Your task to perform on an android device: Show me productivity apps on the Play Store Image 0: 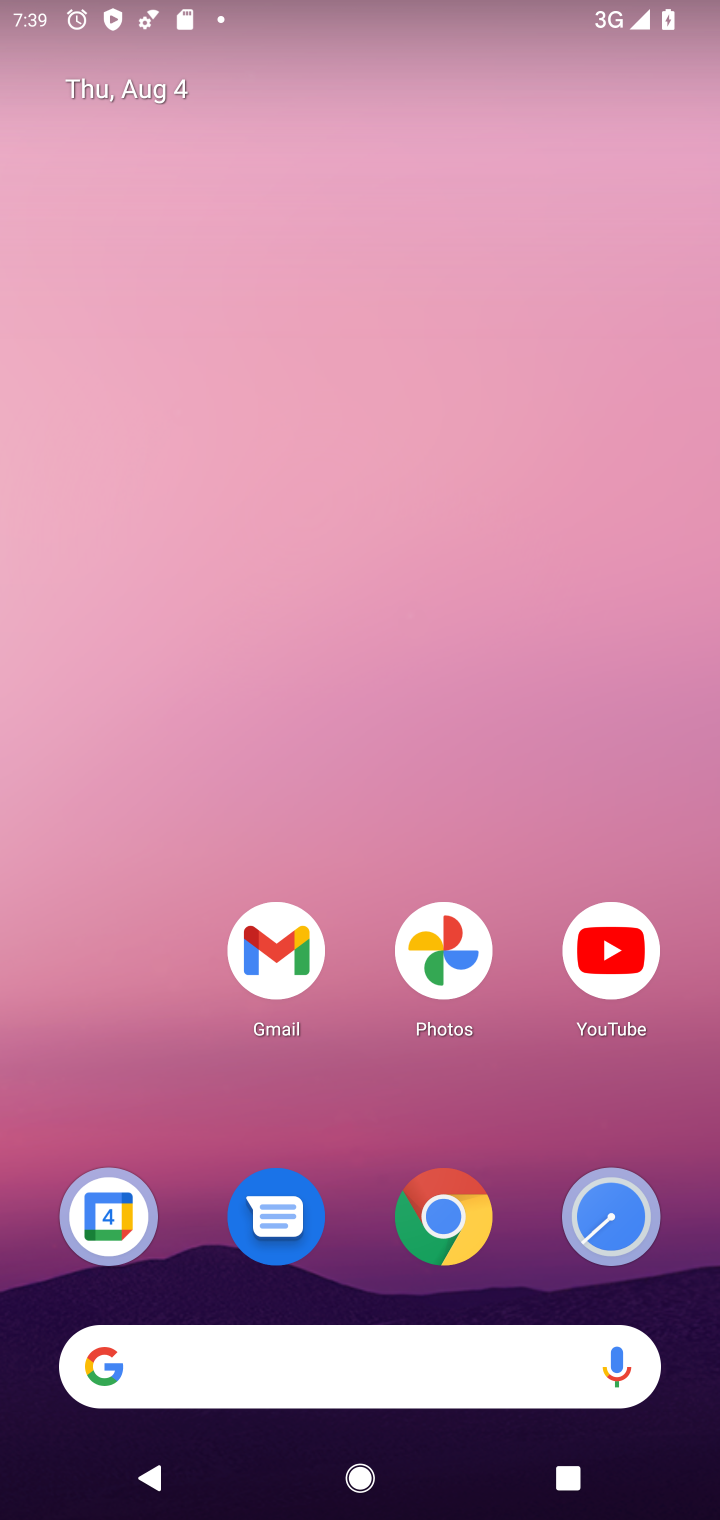
Step 0: drag from (615, 959) to (548, 223)
Your task to perform on an android device: Show me productivity apps on the Play Store Image 1: 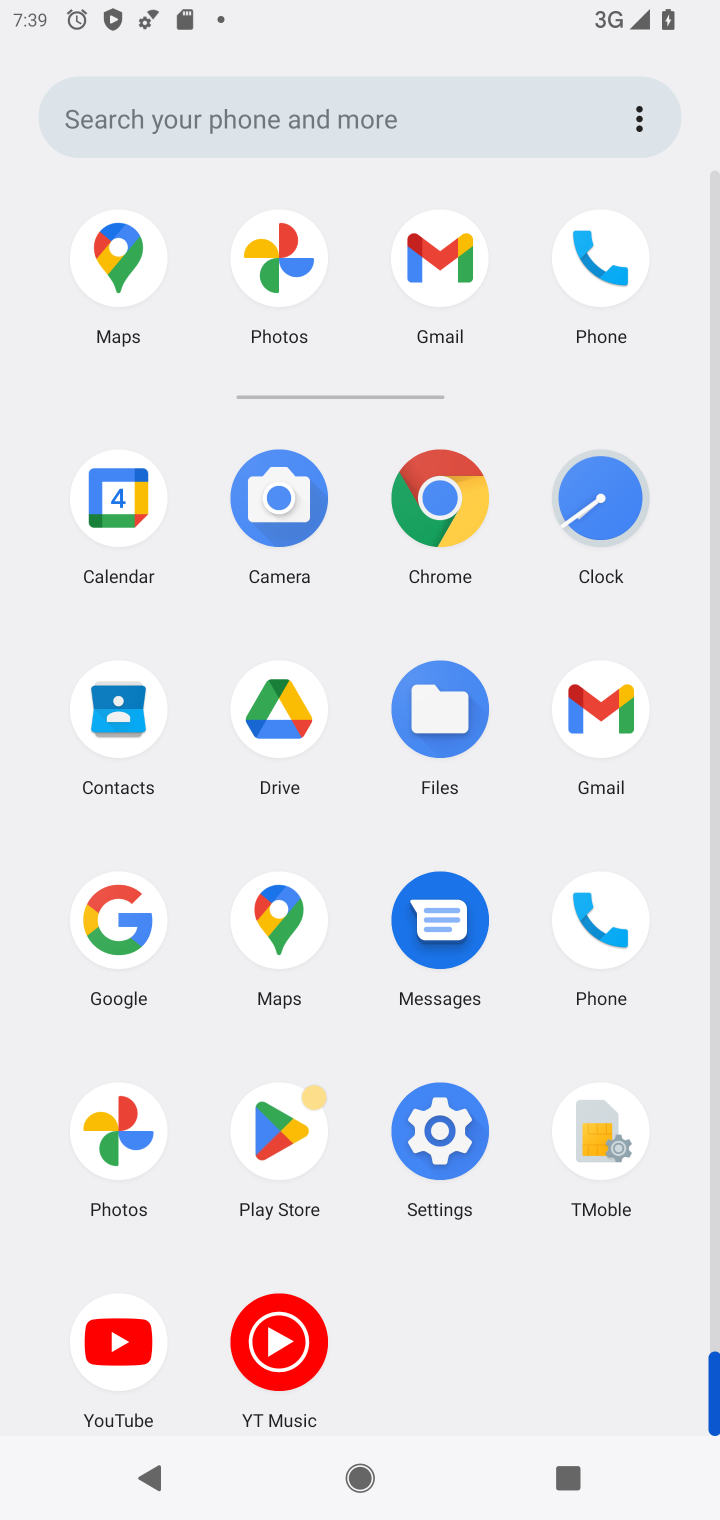
Step 1: click (284, 1152)
Your task to perform on an android device: Show me productivity apps on the Play Store Image 2: 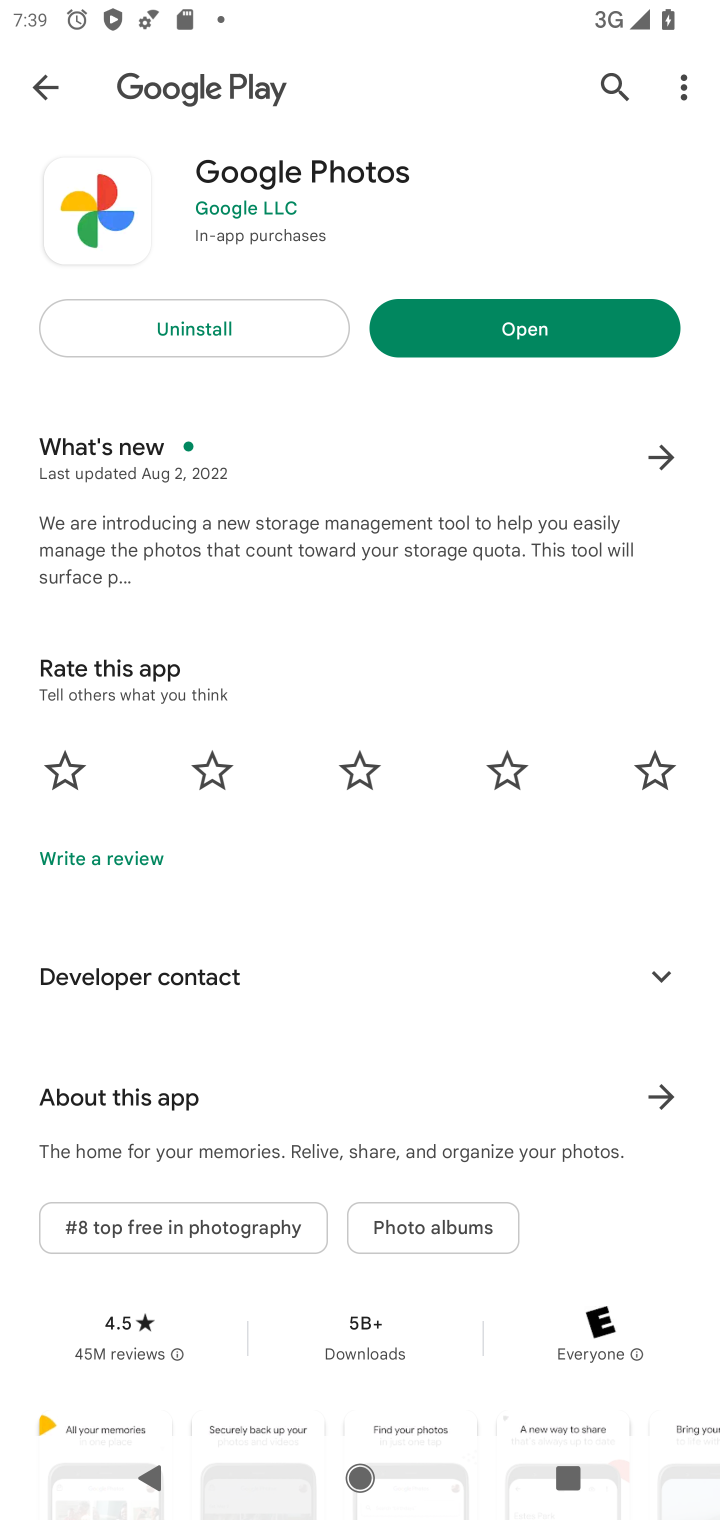
Step 2: click (50, 100)
Your task to perform on an android device: Show me productivity apps on the Play Store Image 3: 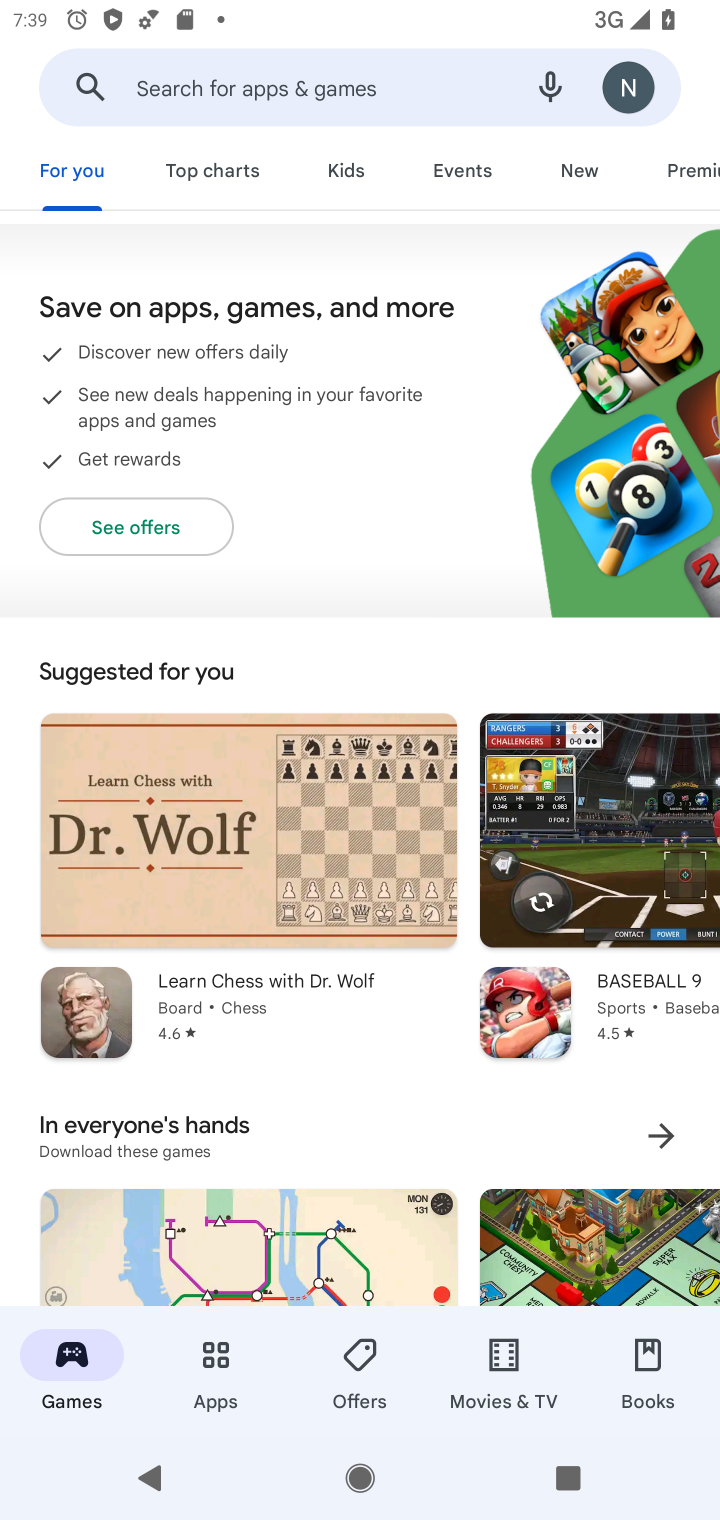
Step 3: click (216, 1377)
Your task to perform on an android device: Show me productivity apps on the Play Store Image 4: 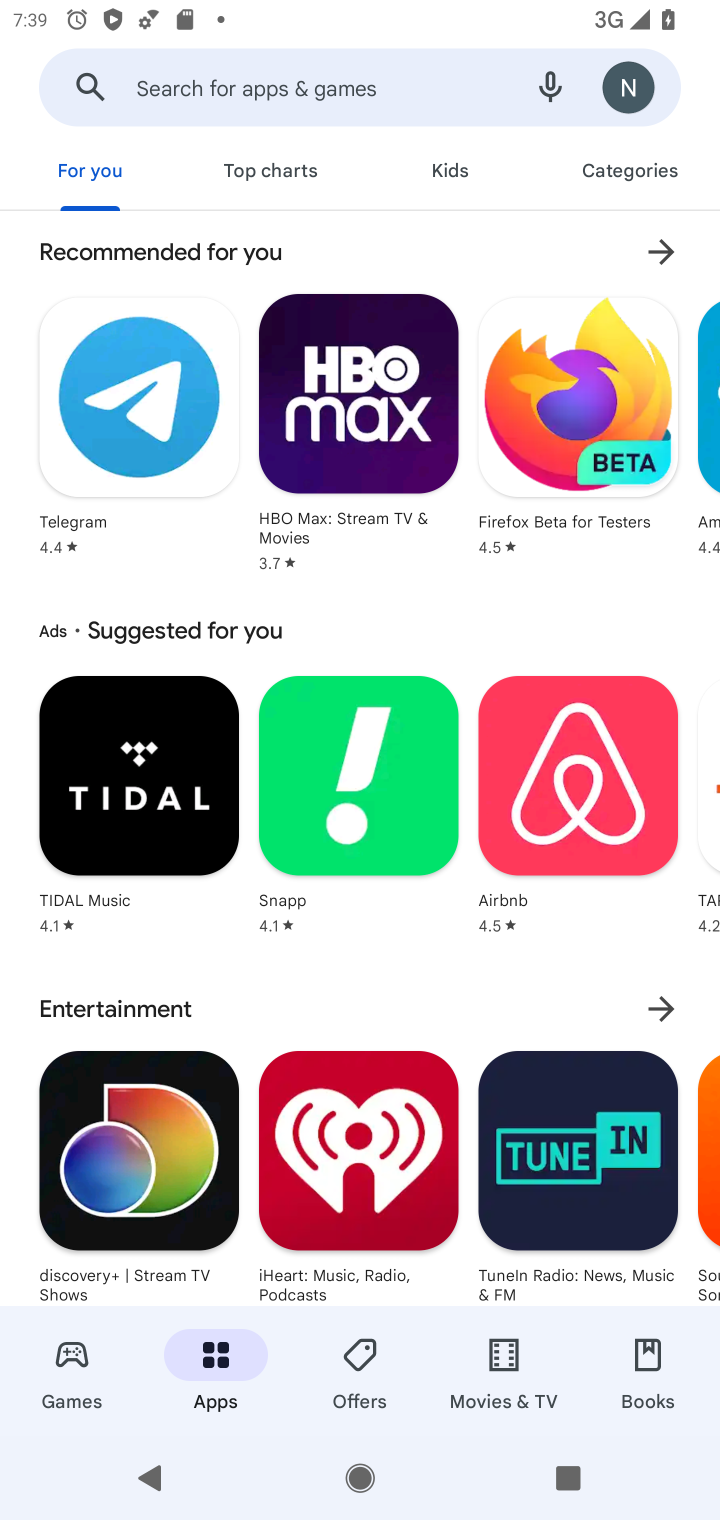
Step 4: click (609, 159)
Your task to perform on an android device: Show me productivity apps on the Play Store Image 5: 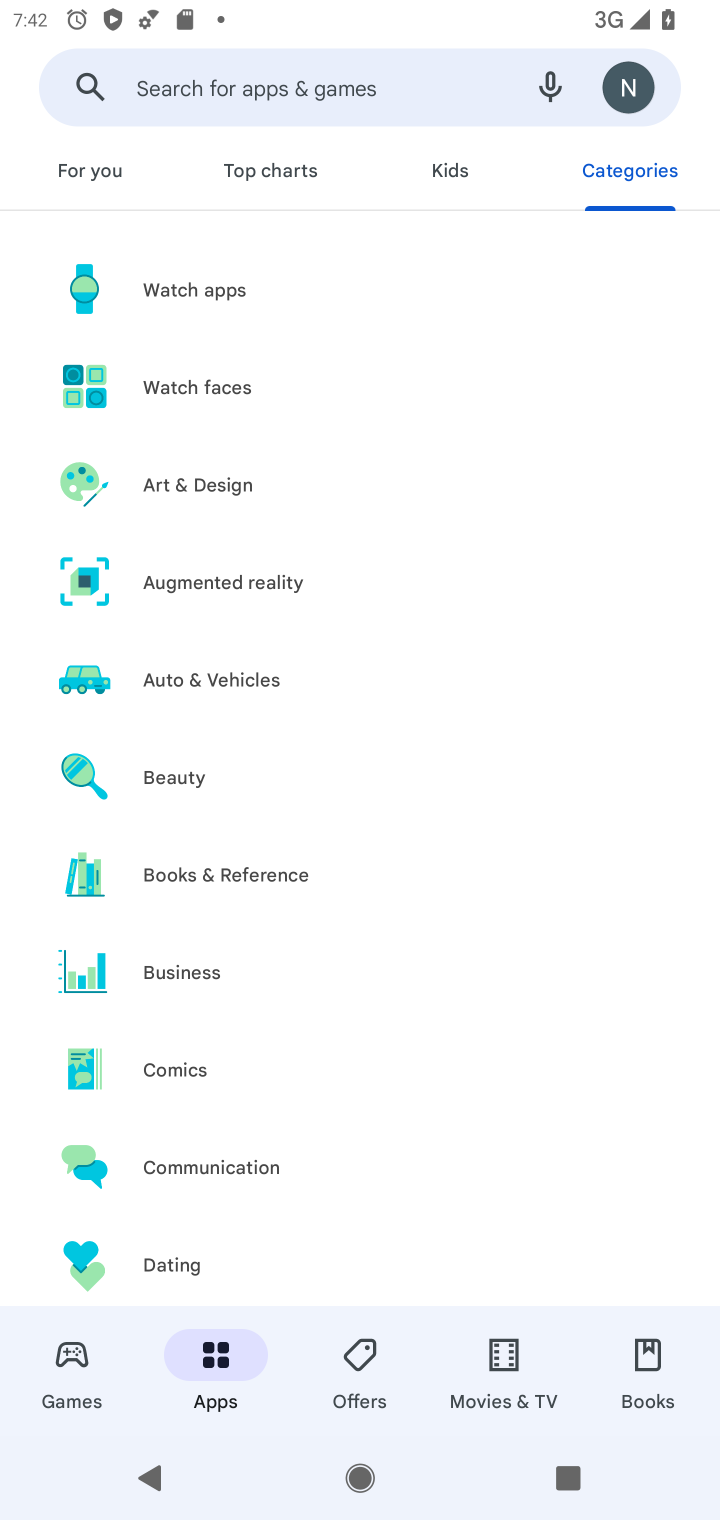
Step 5: drag from (402, 961) to (366, 235)
Your task to perform on an android device: Show me productivity apps on the Play Store Image 6: 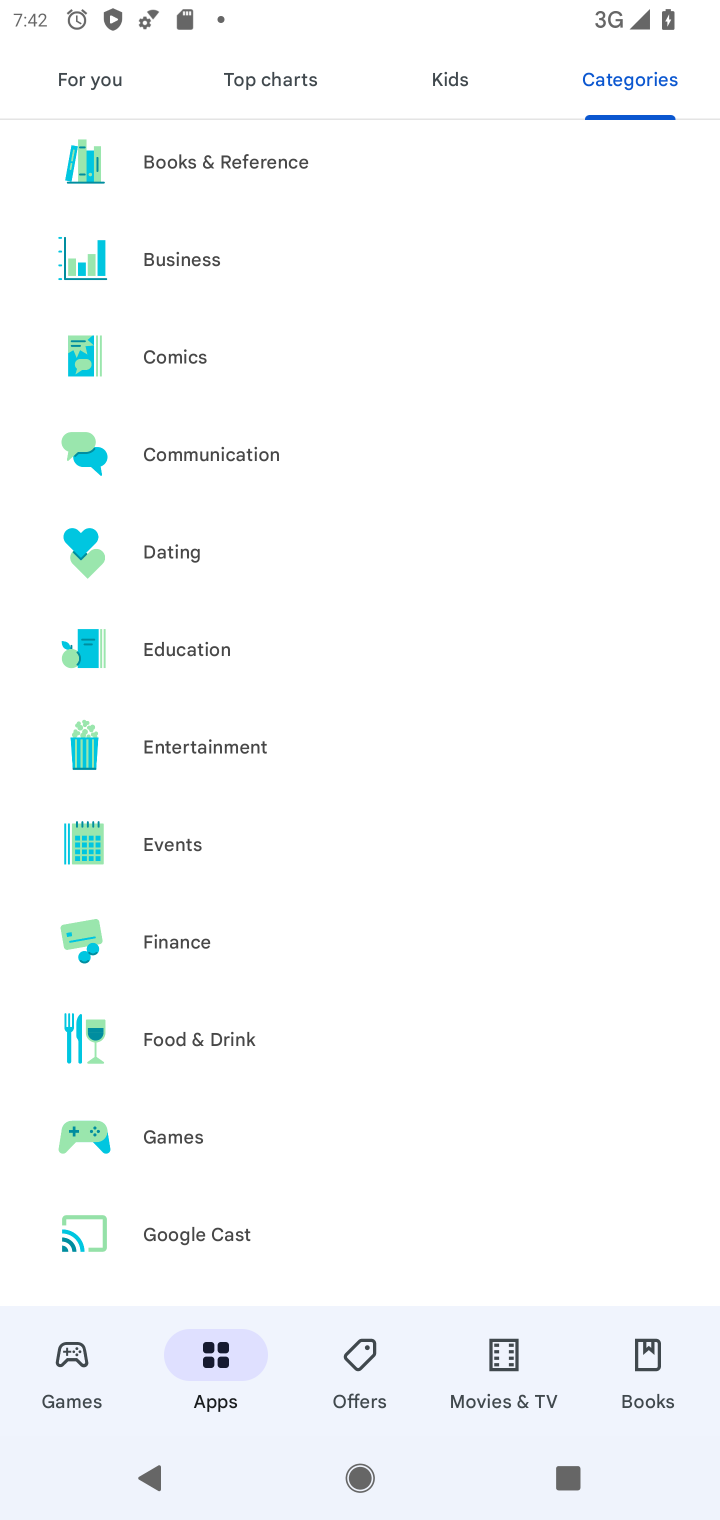
Step 6: drag from (427, 1220) to (309, 296)
Your task to perform on an android device: Show me productivity apps on the Play Store Image 7: 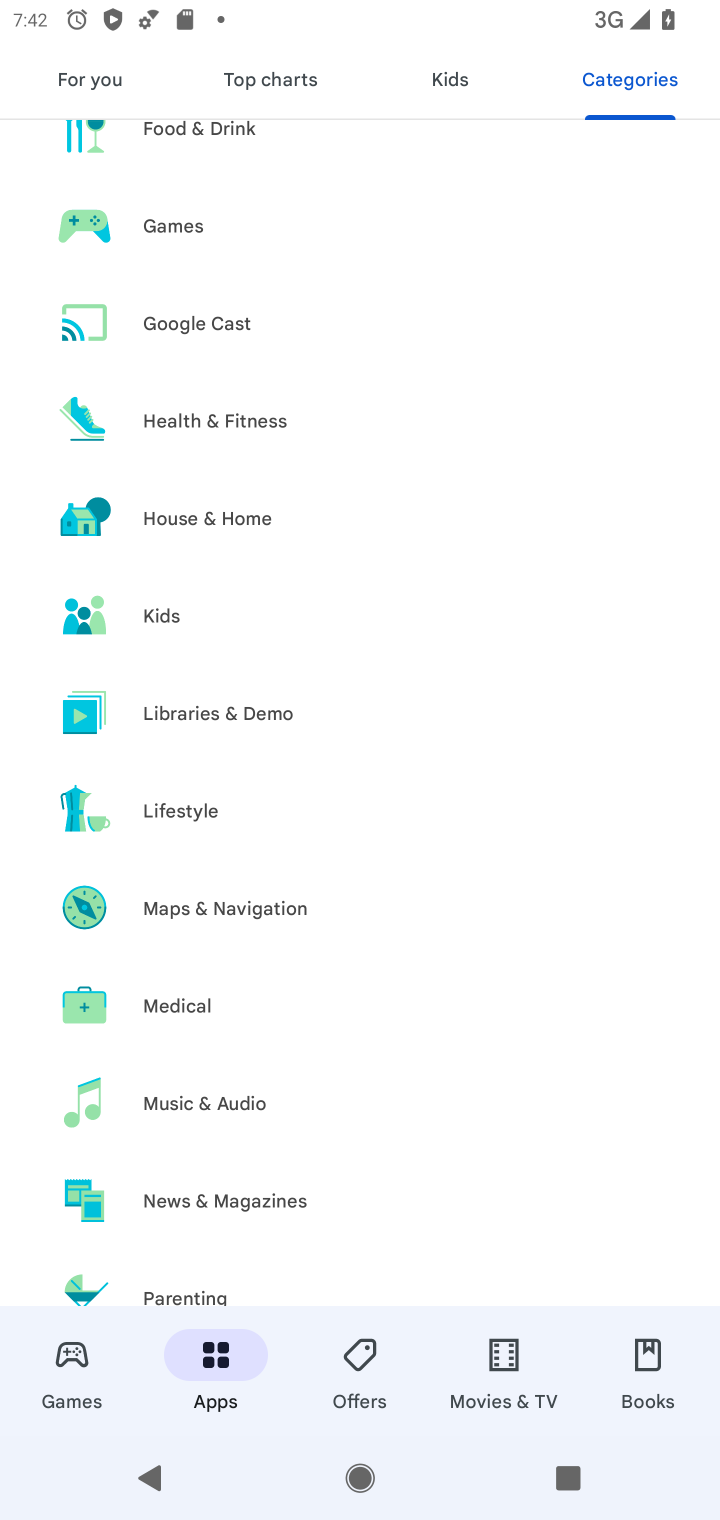
Step 7: drag from (321, 1186) to (242, 372)
Your task to perform on an android device: Show me productivity apps on the Play Store Image 8: 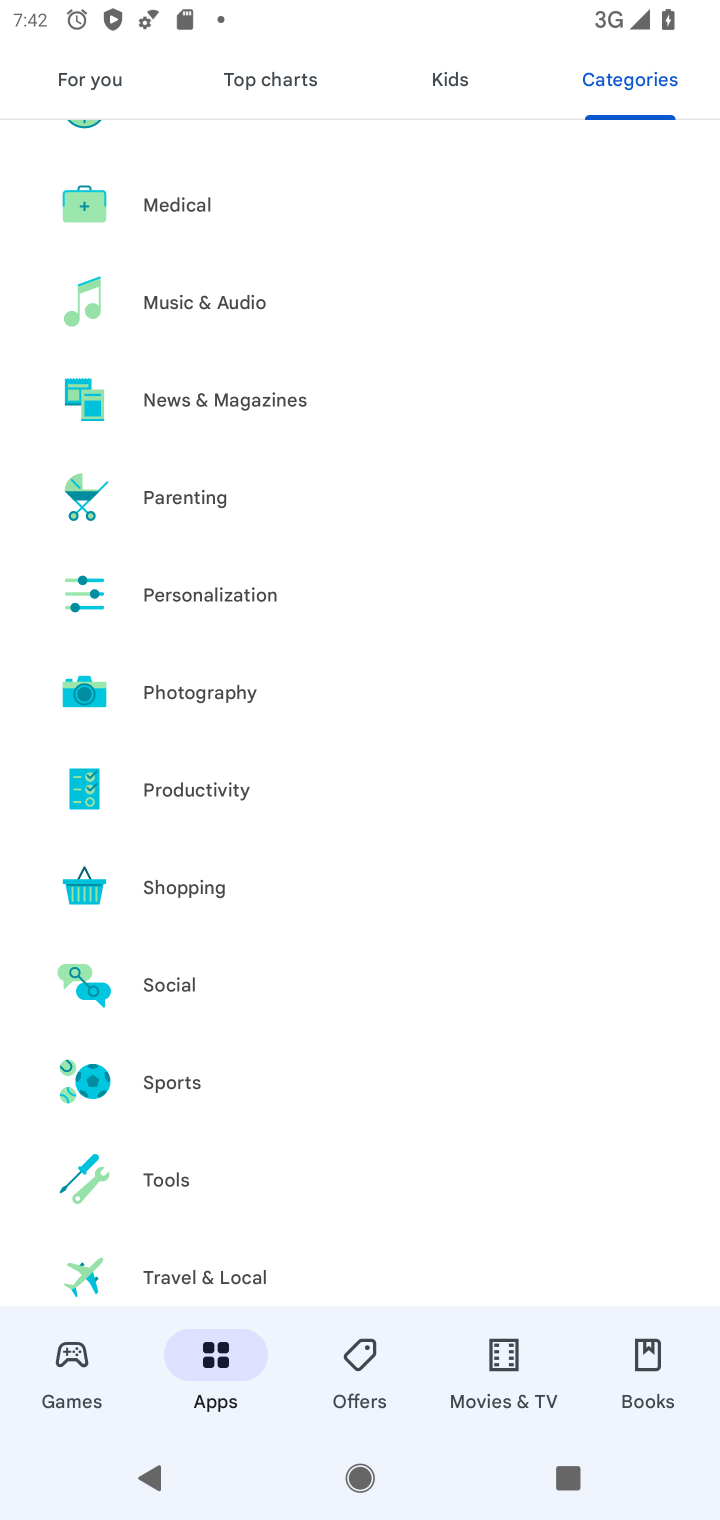
Step 8: click (160, 770)
Your task to perform on an android device: Show me productivity apps on the Play Store Image 9: 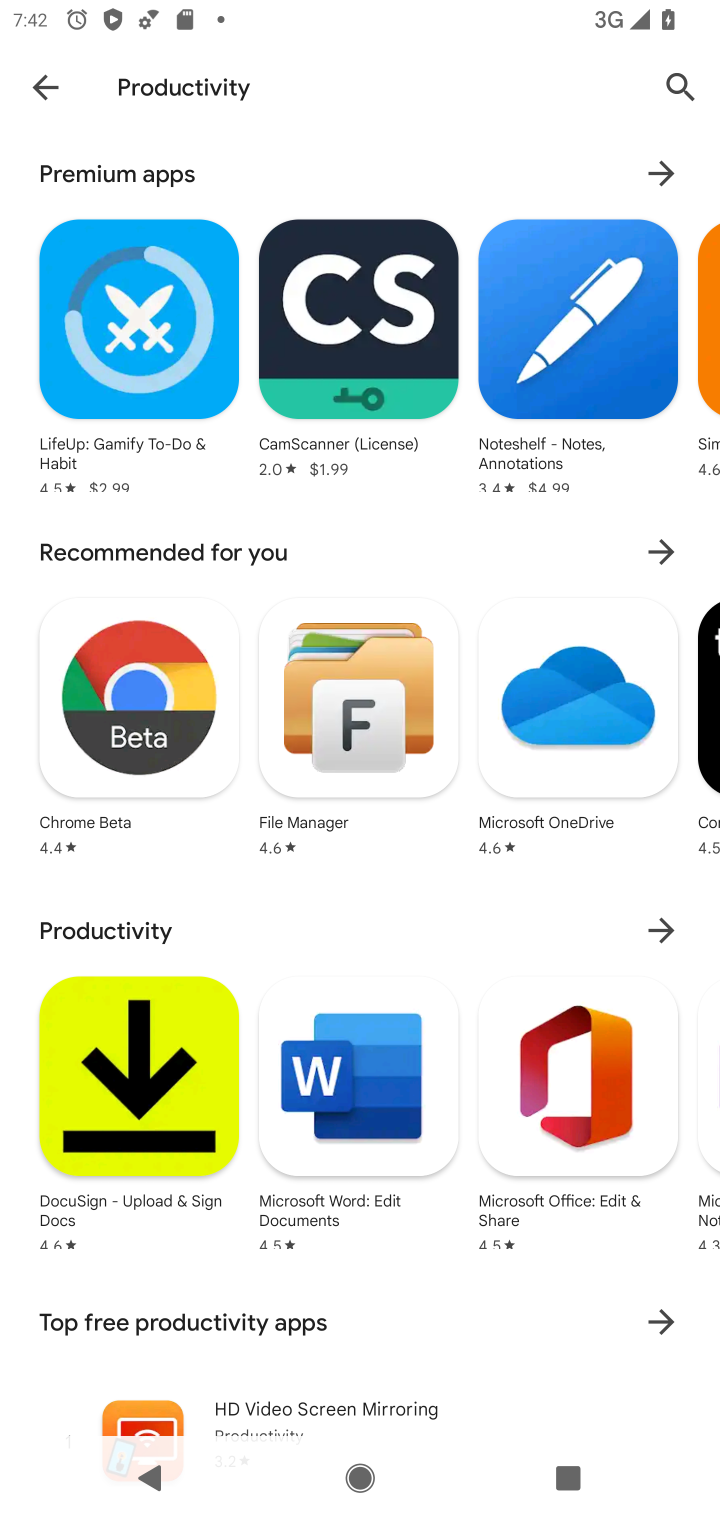
Step 9: task complete